Your task to perform on an android device: Go to wifi settings Image 0: 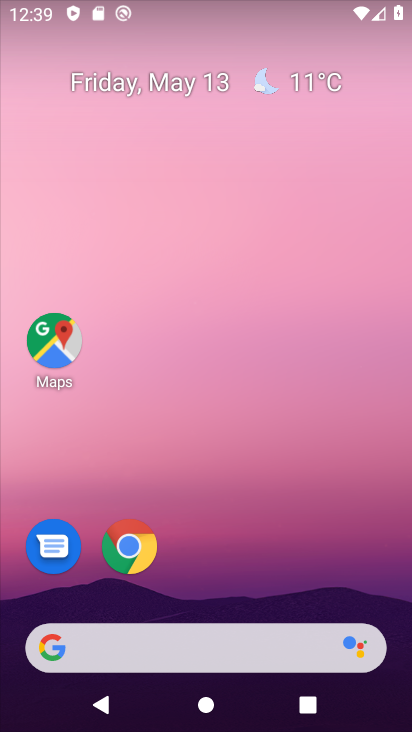
Step 0: drag from (232, 609) to (271, 286)
Your task to perform on an android device: Go to wifi settings Image 1: 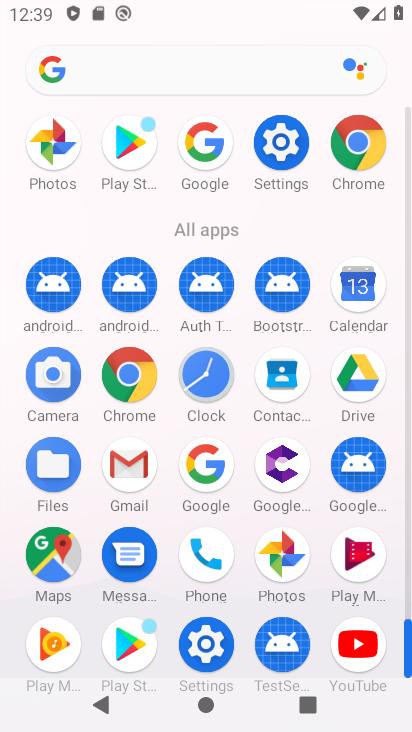
Step 1: click (285, 172)
Your task to perform on an android device: Go to wifi settings Image 2: 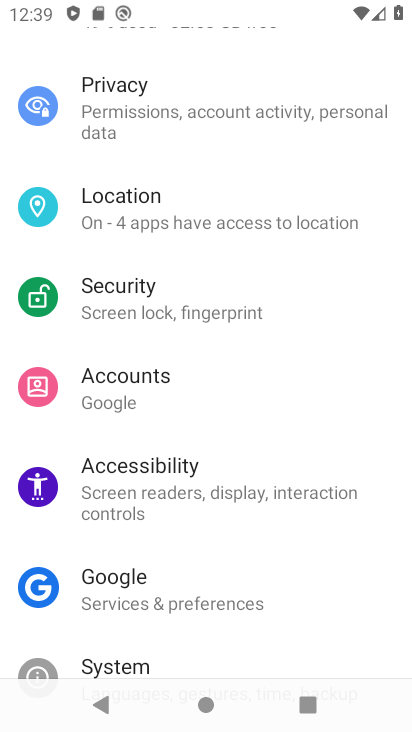
Step 2: drag from (217, 215) to (174, 551)
Your task to perform on an android device: Go to wifi settings Image 3: 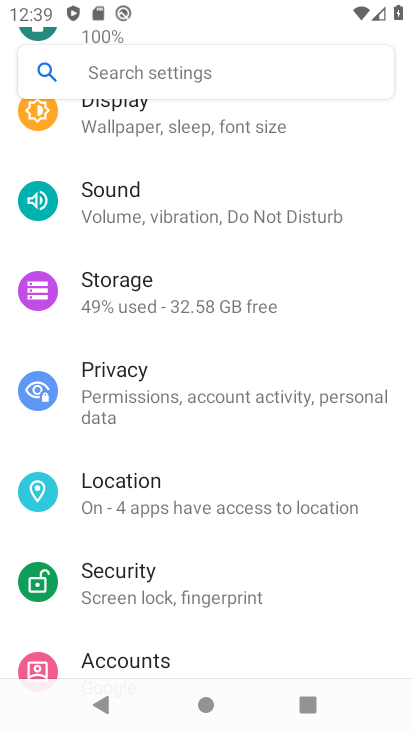
Step 3: drag from (210, 352) to (163, 601)
Your task to perform on an android device: Go to wifi settings Image 4: 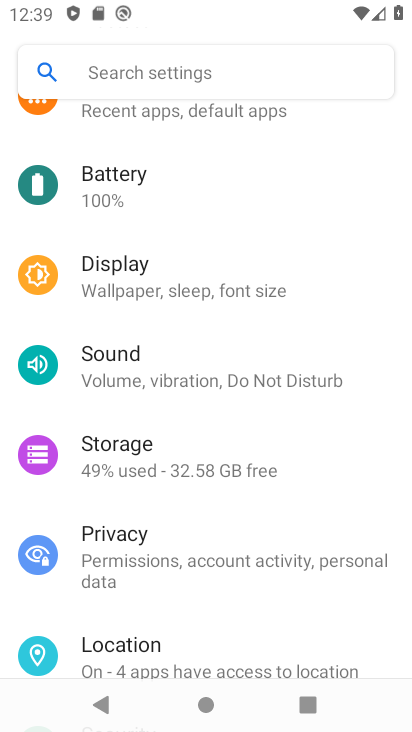
Step 4: drag from (205, 239) to (173, 628)
Your task to perform on an android device: Go to wifi settings Image 5: 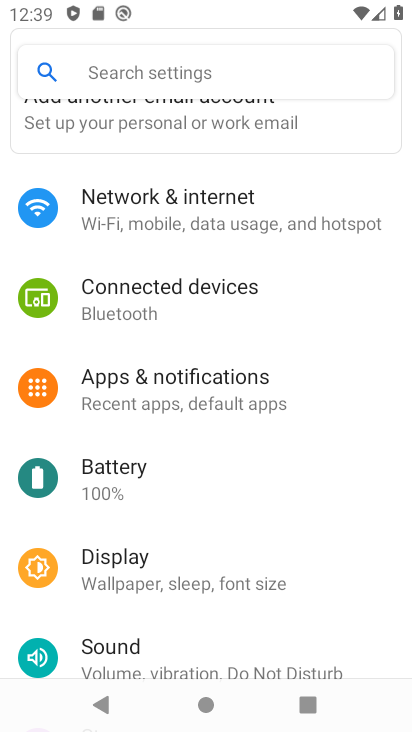
Step 5: click (222, 218)
Your task to perform on an android device: Go to wifi settings Image 6: 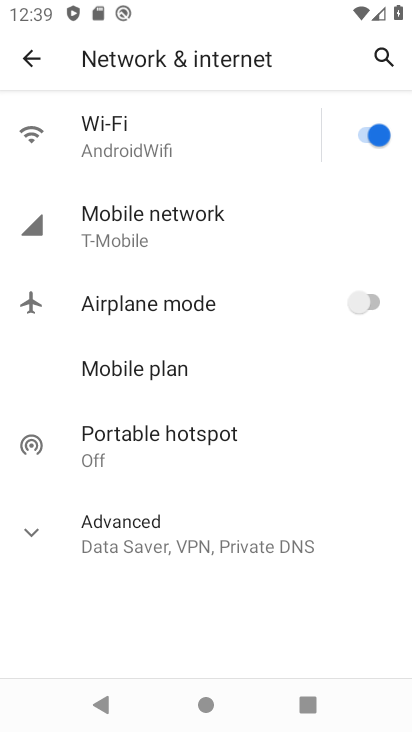
Step 6: click (199, 153)
Your task to perform on an android device: Go to wifi settings Image 7: 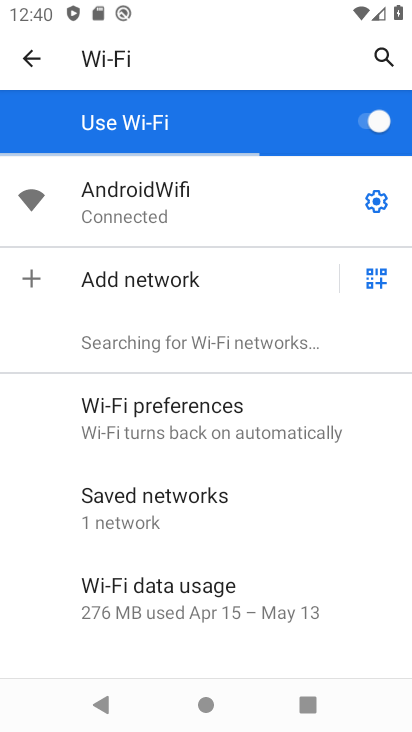
Step 7: task complete